Your task to perform on an android device: Set the phone to "Do not disturb". Image 0: 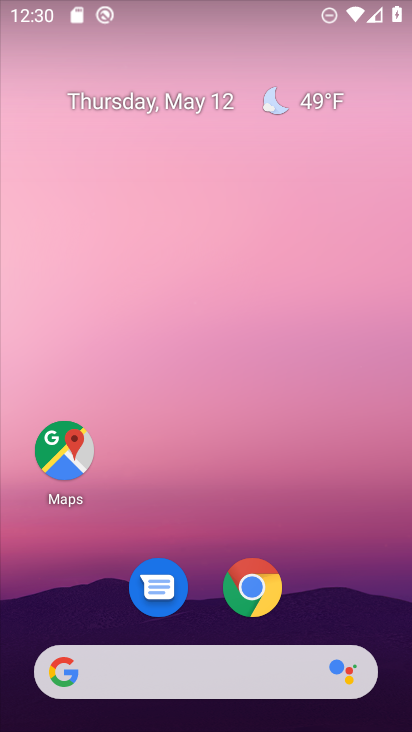
Step 0: drag from (301, 602) to (339, 322)
Your task to perform on an android device: Set the phone to "Do not disturb". Image 1: 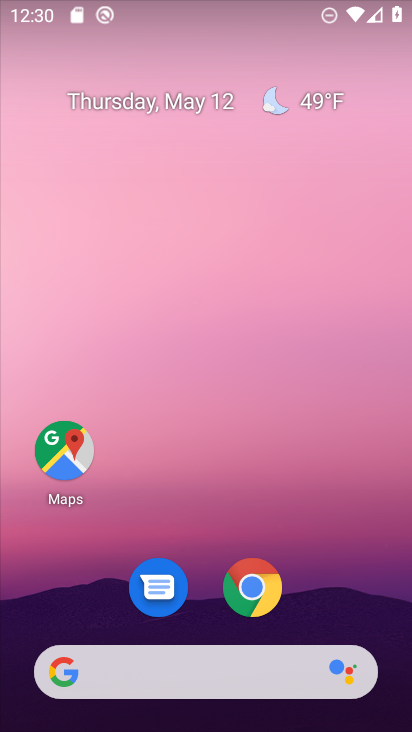
Step 1: drag from (196, 6) to (157, 473)
Your task to perform on an android device: Set the phone to "Do not disturb". Image 2: 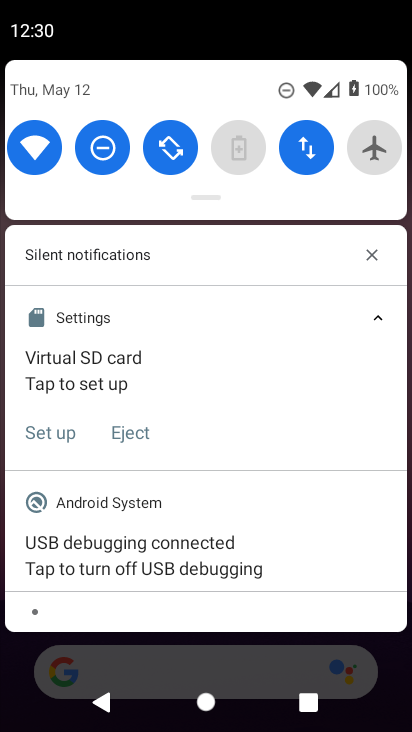
Step 2: click (87, 150)
Your task to perform on an android device: Set the phone to "Do not disturb". Image 3: 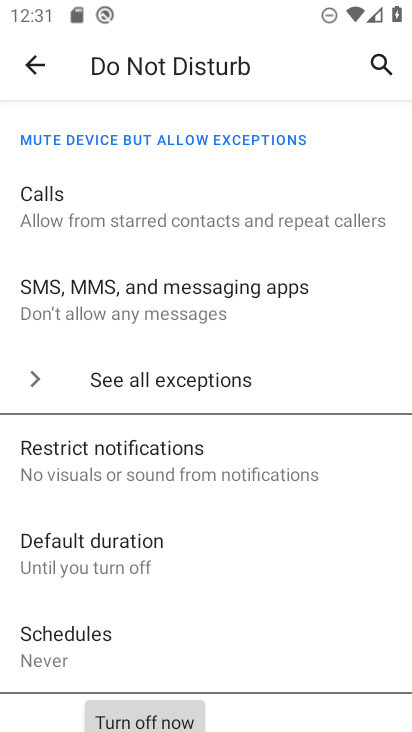
Step 3: task complete